Your task to perform on an android device: Open Youtube and go to "Your channel" Image 0: 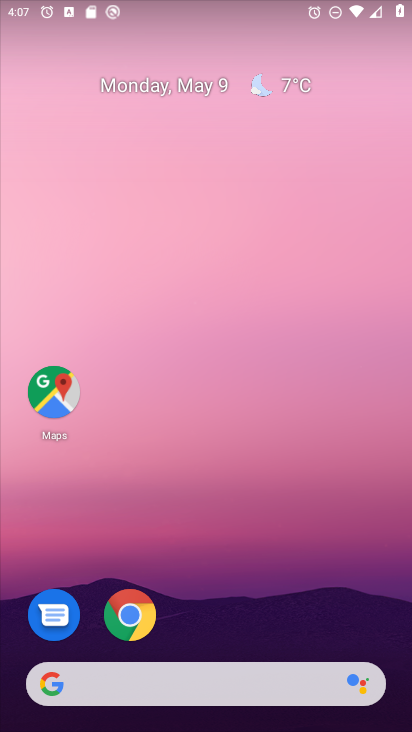
Step 0: drag from (380, 614) to (298, 69)
Your task to perform on an android device: Open Youtube and go to "Your channel" Image 1: 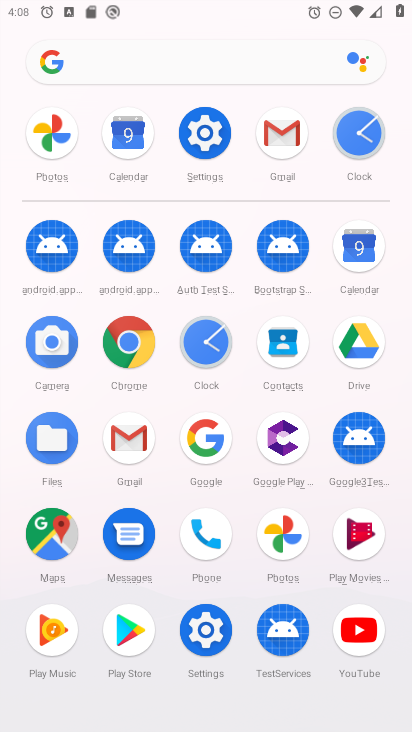
Step 1: click (355, 631)
Your task to perform on an android device: Open Youtube and go to "Your channel" Image 2: 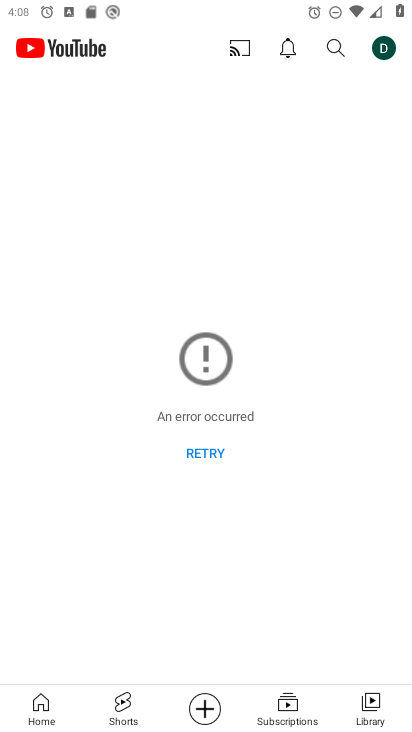
Step 2: click (375, 44)
Your task to perform on an android device: Open Youtube and go to "Your channel" Image 3: 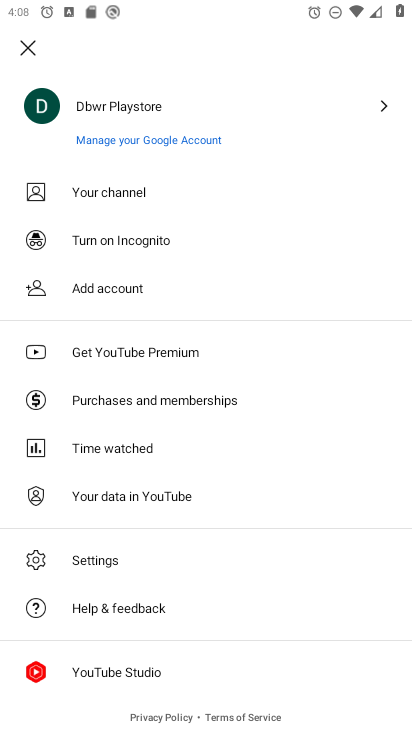
Step 3: click (88, 188)
Your task to perform on an android device: Open Youtube and go to "Your channel" Image 4: 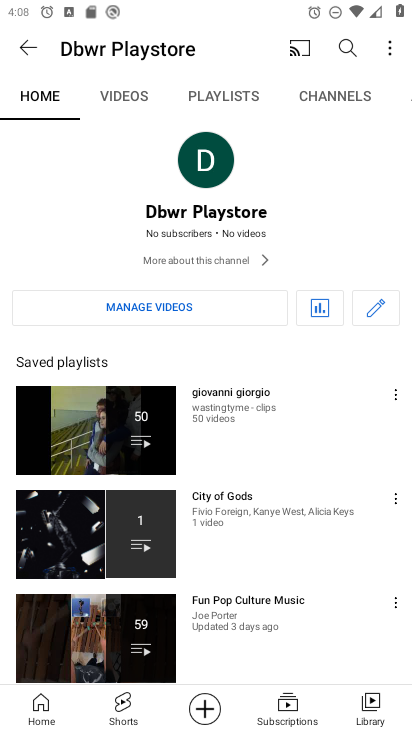
Step 4: task complete